Your task to perform on an android device: delete browsing data in the chrome app Image 0: 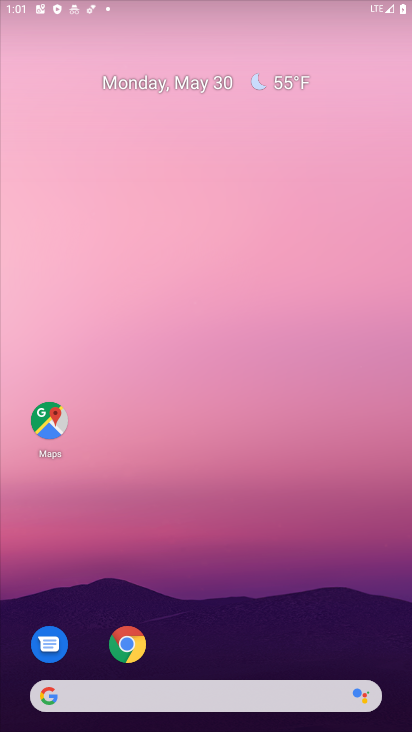
Step 0: drag from (353, 627) to (318, 96)
Your task to perform on an android device: delete browsing data in the chrome app Image 1: 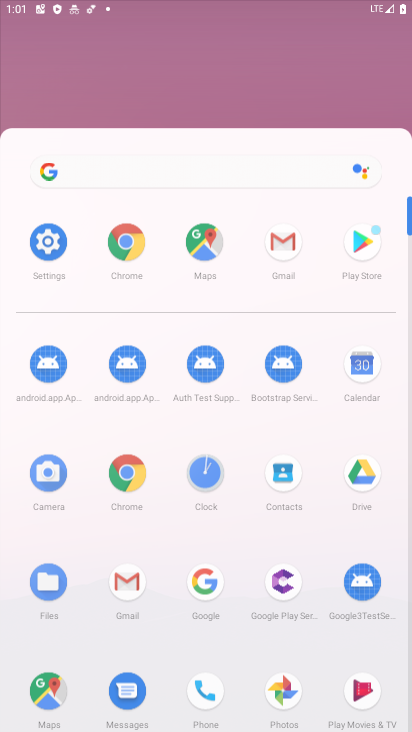
Step 1: click (318, 96)
Your task to perform on an android device: delete browsing data in the chrome app Image 2: 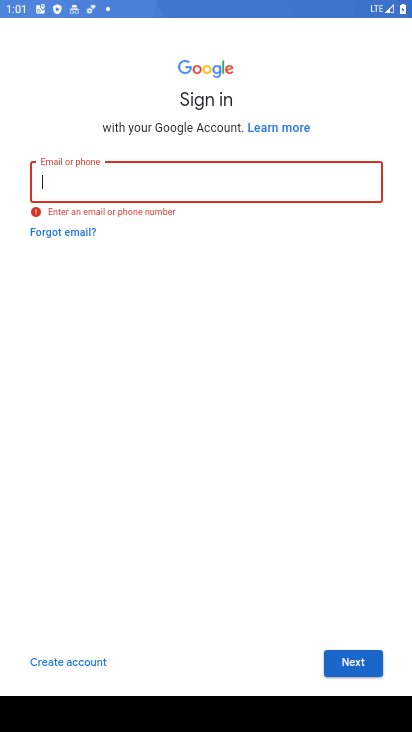
Step 2: press home button
Your task to perform on an android device: delete browsing data in the chrome app Image 3: 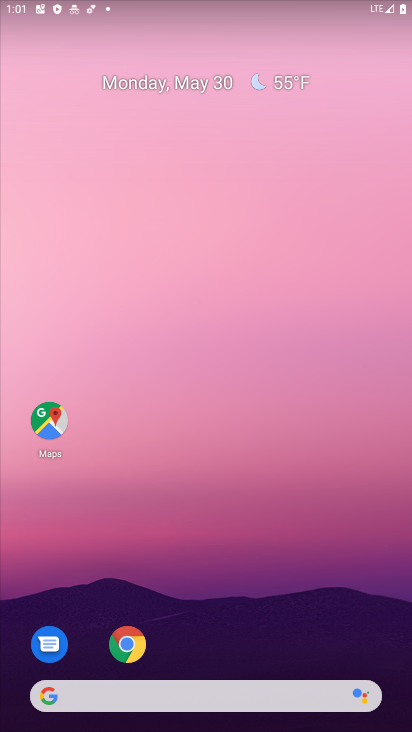
Step 3: click (128, 626)
Your task to perform on an android device: delete browsing data in the chrome app Image 4: 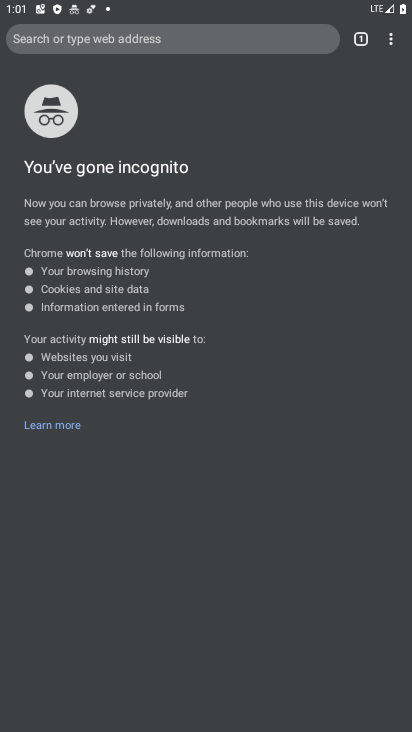
Step 4: click (391, 43)
Your task to perform on an android device: delete browsing data in the chrome app Image 5: 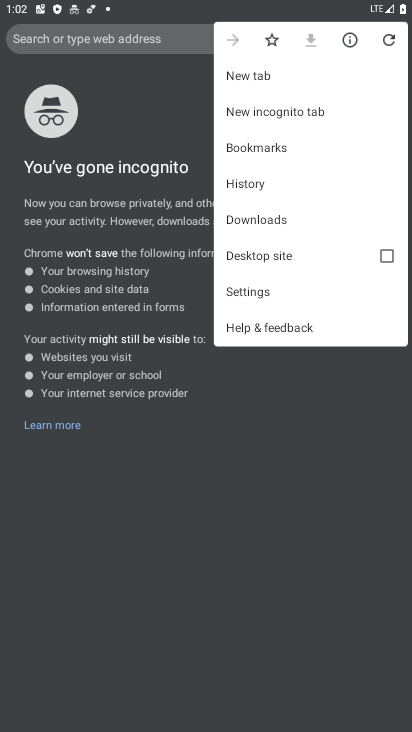
Step 5: click (271, 183)
Your task to perform on an android device: delete browsing data in the chrome app Image 6: 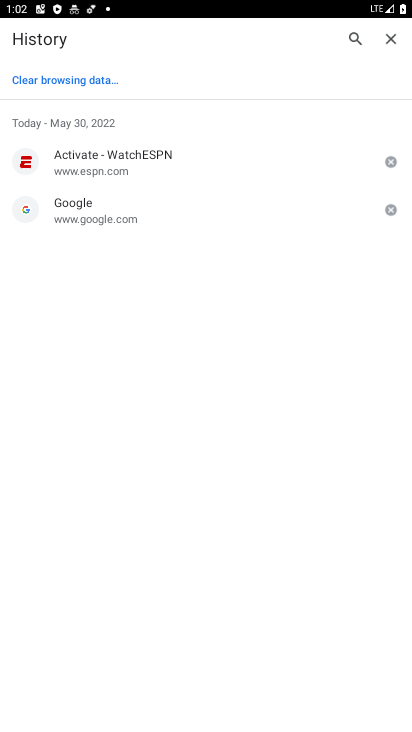
Step 6: click (47, 89)
Your task to perform on an android device: delete browsing data in the chrome app Image 7: 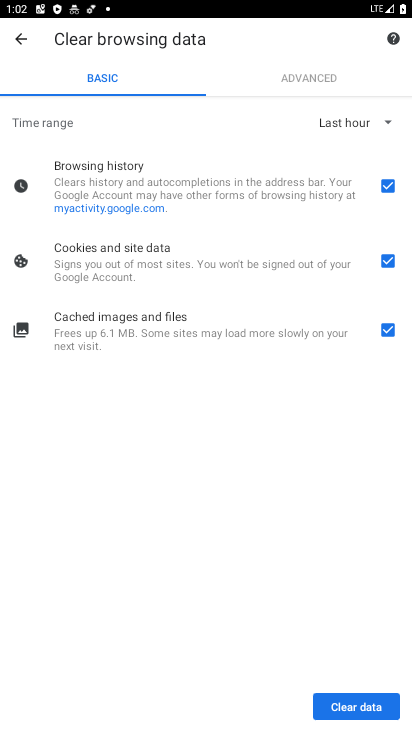
Step 7: click (331, 716)
Your task to perform on an android device: delete browsing data in the chrome app Image 8: 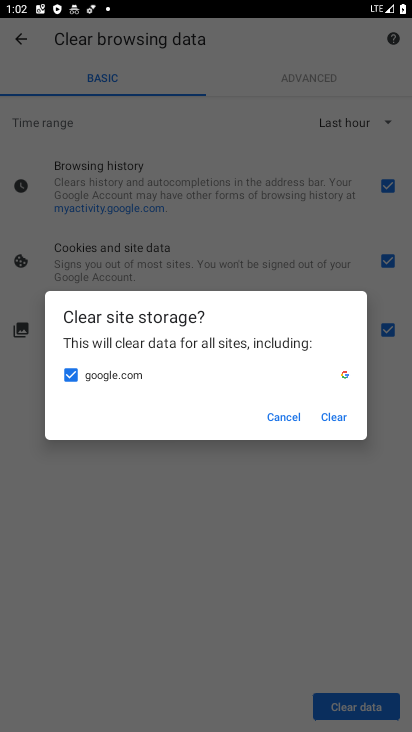
Step 8: click (331, 403)
Your task to perform on an android device: delete browsing data in the chrome app Image 9: 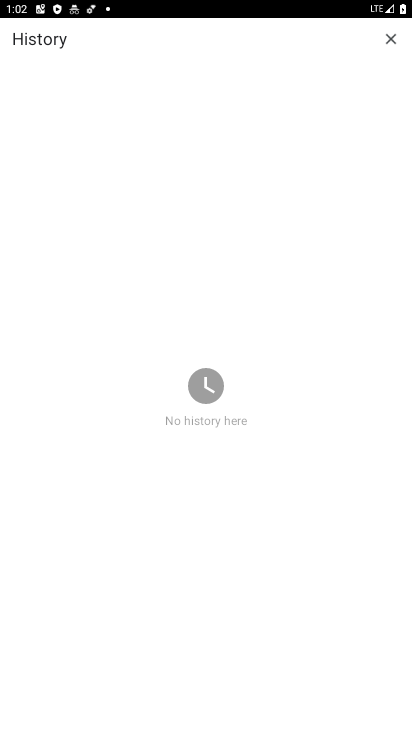
Step 9: task complete